Your task to perform on an android device: open a new tab in the chrome app Image 0: 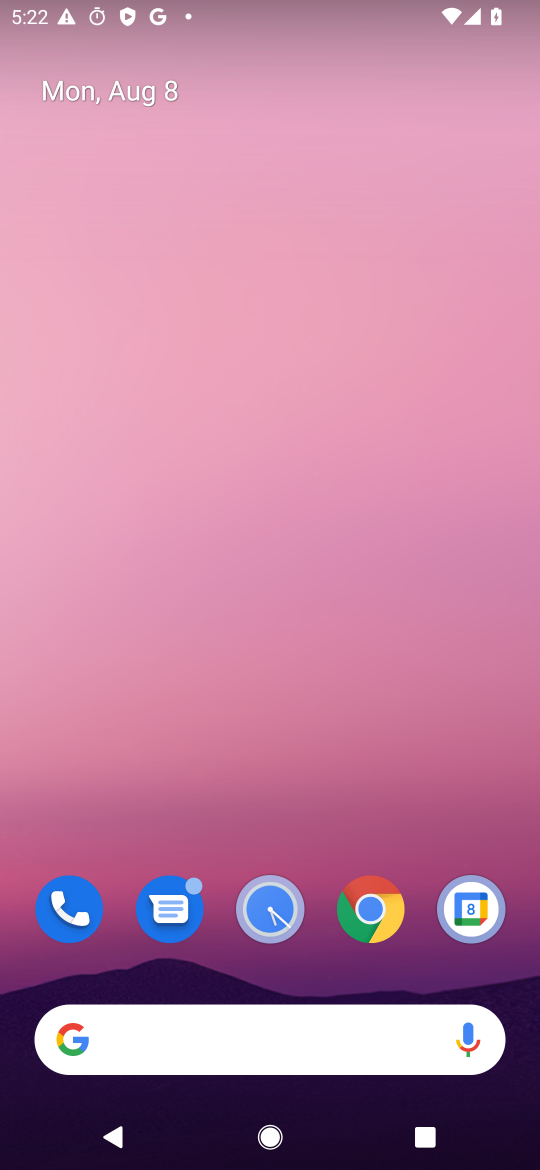
Step 0: click (367, 916)
Your task to perform on an android device: open a new tab in the chrome app Image 1: 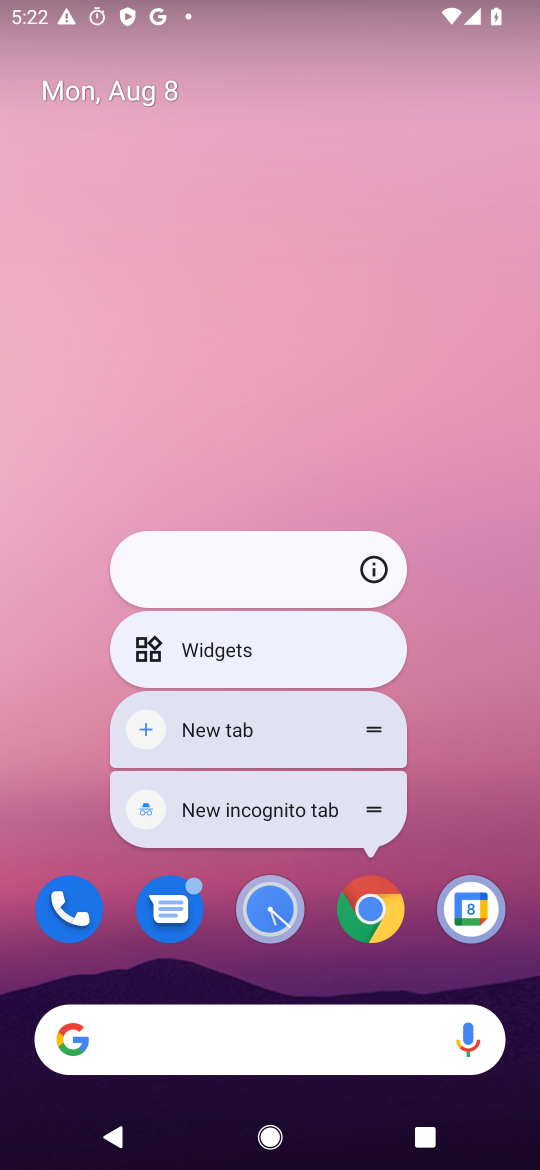
Step 1: click (374, 909)
Your task to perform on an android device: open a new tab in the chrome app Image 2: 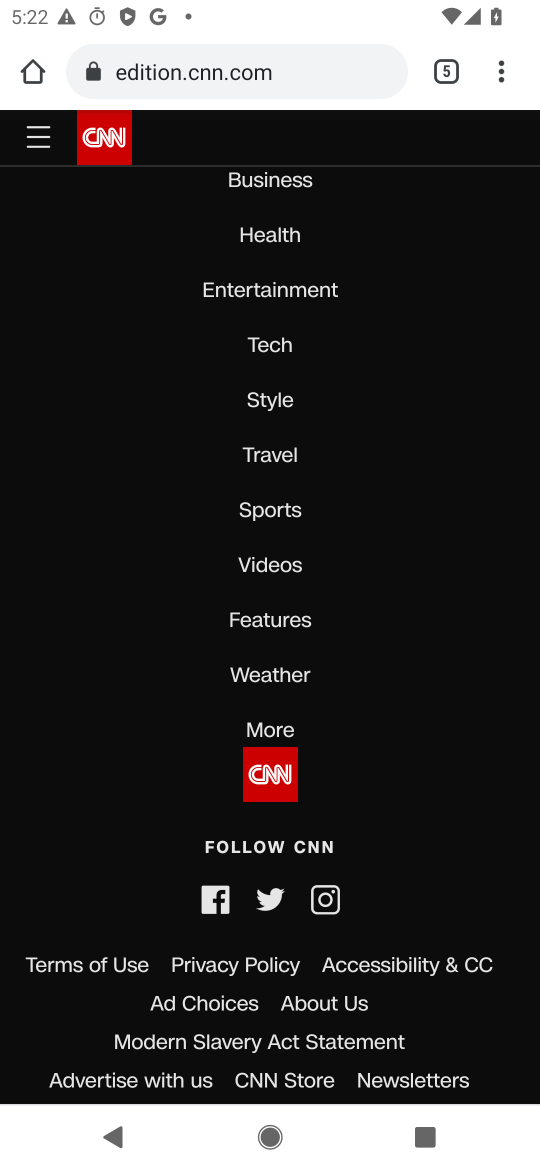
Step 2: task complete